Your task to perform on an android device: Is it going to rain tomorrow? Image 0: 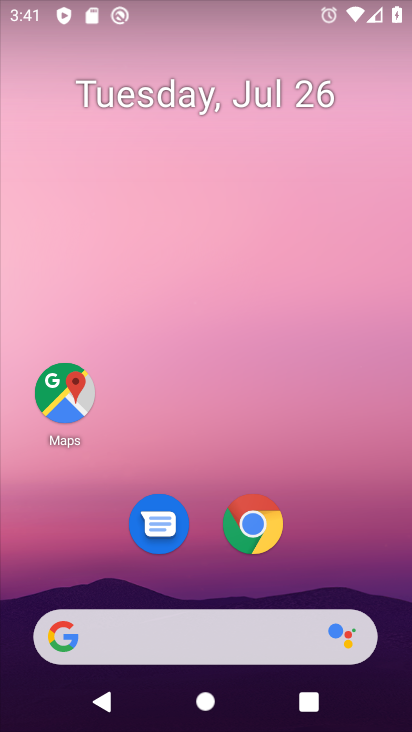
Step 0: click (265, 633)
Your task to perform on an android device: Is it going to rain tomorrow? Image 1: 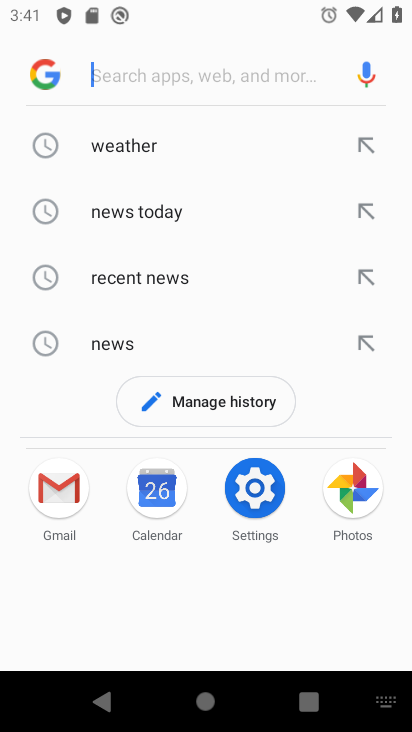
Step 1: click (118, 146)
Your task to perform on an android device: Is it going to rain tomorrow? Image 2: 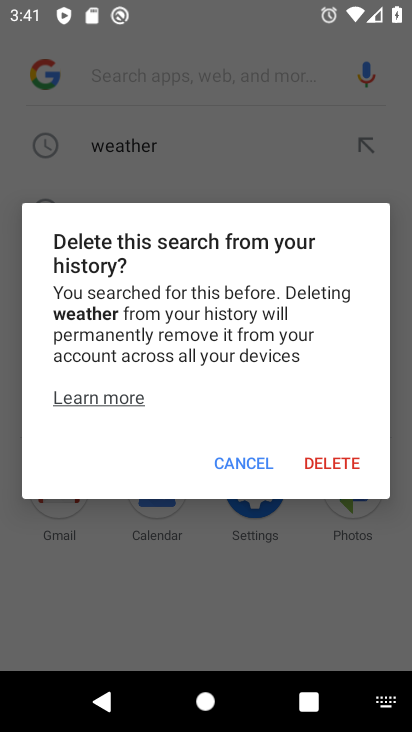
Step 2: click (258, 466)
Your task to perform on an android device: Is it going to rain tomorrow? Image 3: 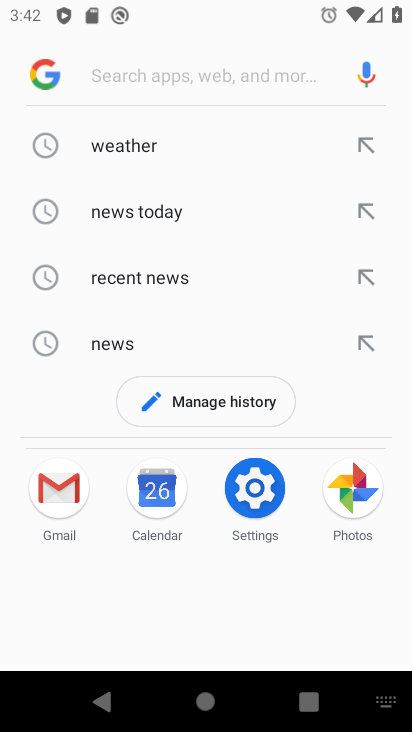
Step 3: click (45, 144)
Your task to perform on an android device: Is it going to rain tomorrow? Image 4: 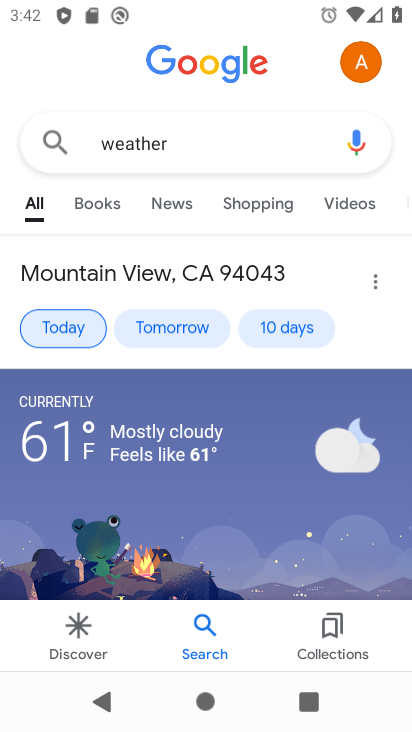
Step 4: click (168, 330)
Your task to perform on an android device: Is it going to rain tomorrow? Image 5: 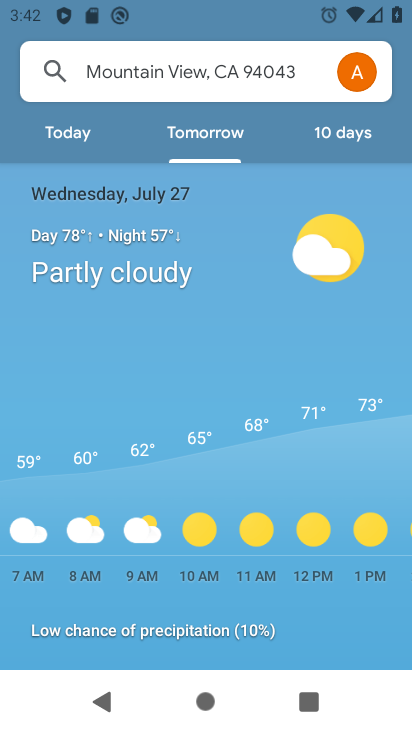
Step 5: task complete